Your task to perform on an android device: Go to sound settings Image 0: 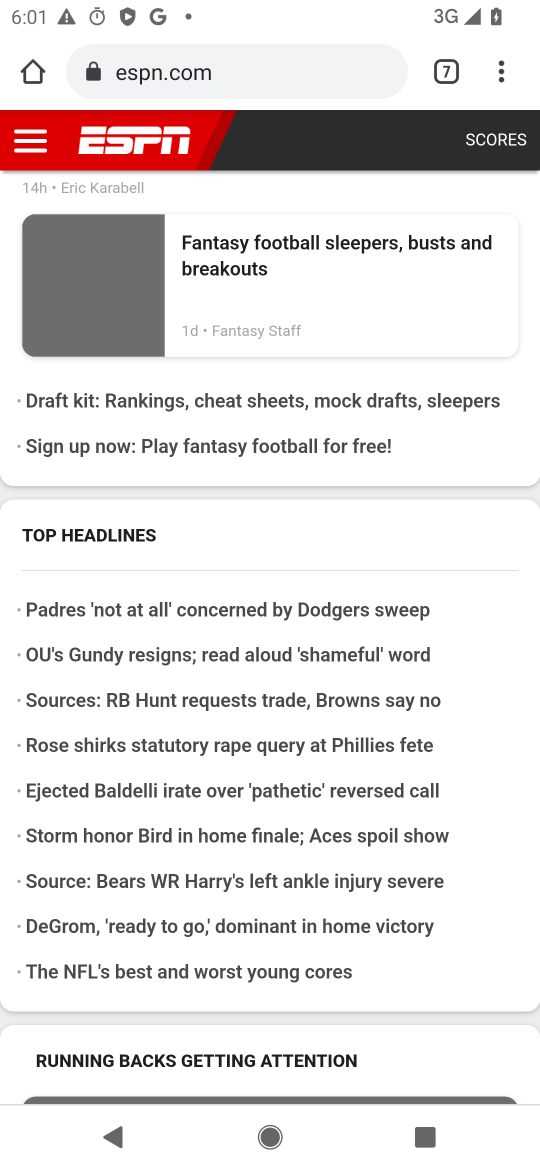
Step 0: press home button
Your task to perform on an android device: Go to sound settings Image 1: 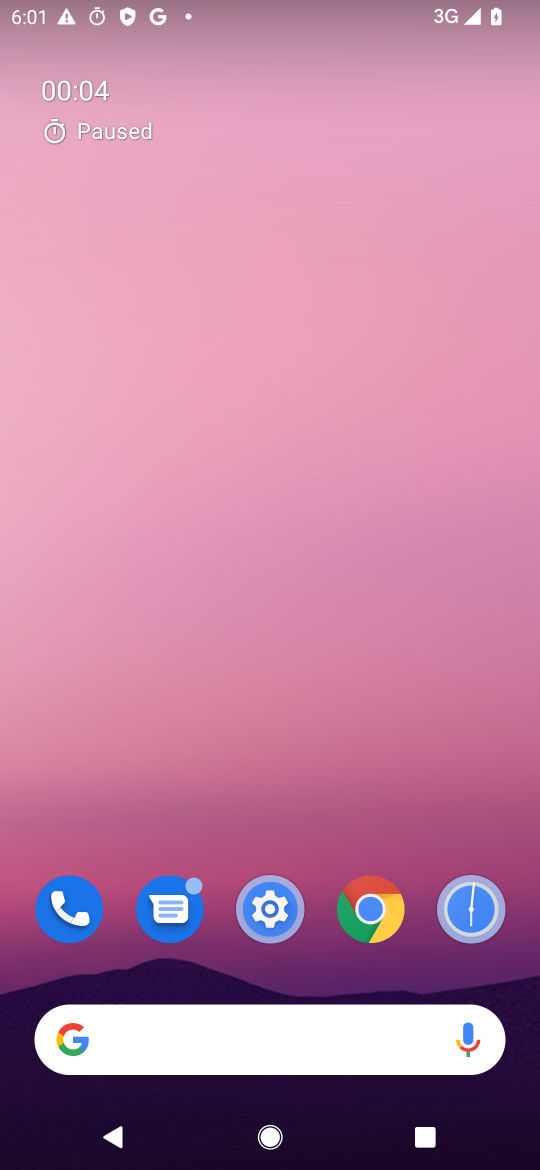
Step 1: click (265, 918)
Your task to perform on an android device: Go to sound settings Image 2: 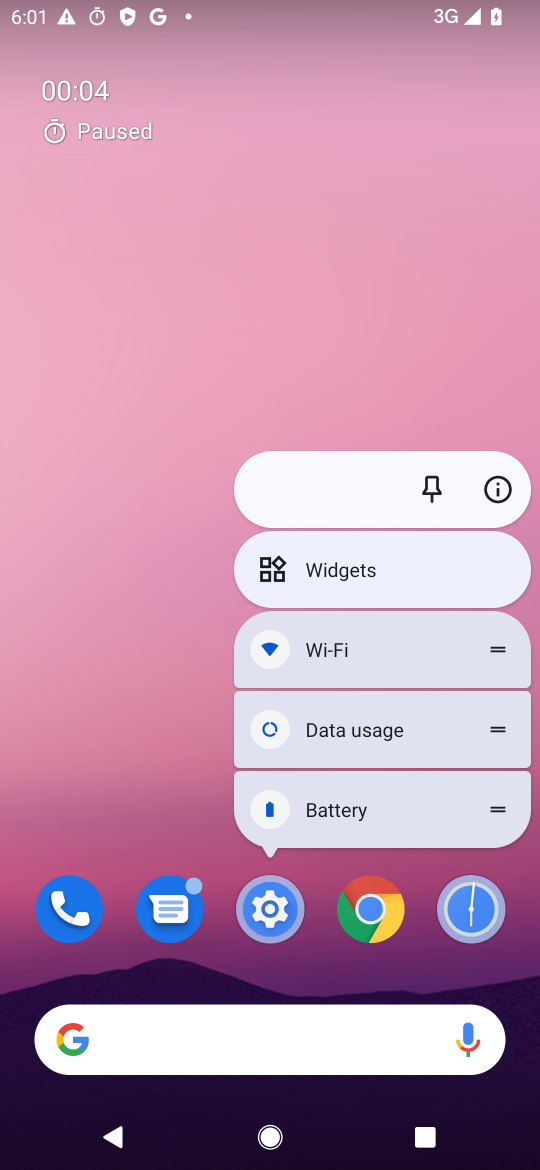
Step 2: click (267, 916)
Your task to perform on an android device: Go to sound settings Image 3: 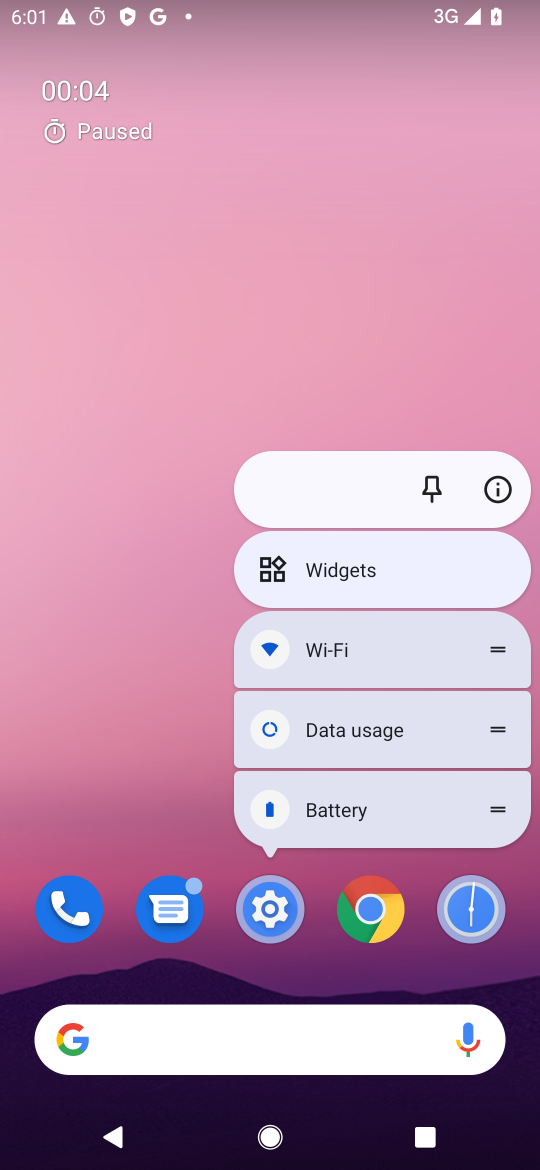
Step 3: click (267, 916)
Your task to perform on an android device: Go to sound settings Image 4: 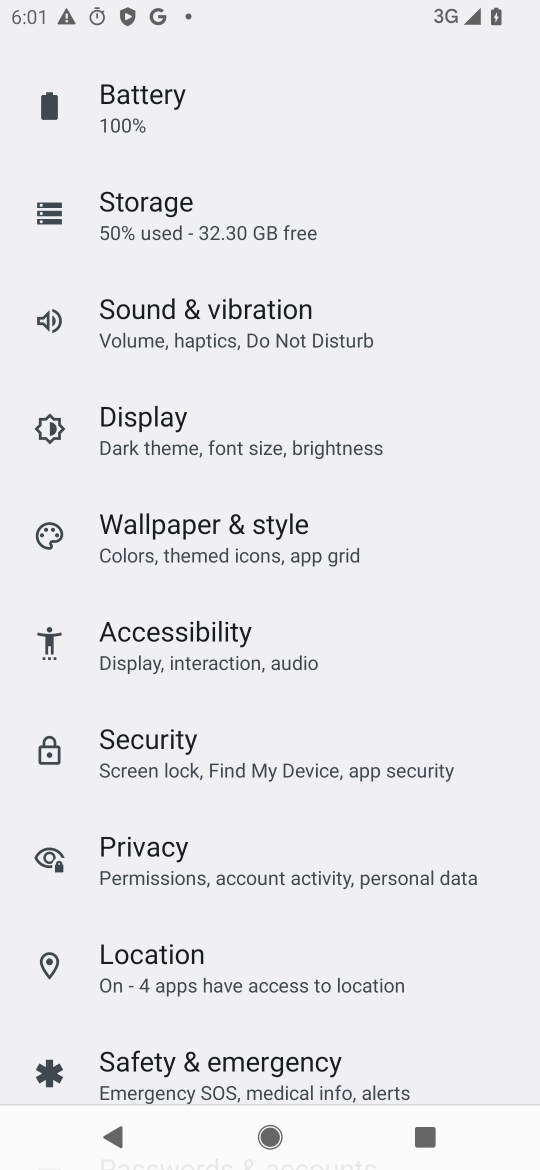
Step 4: drag from (295, 870) to (530, 136)
Your task to perform on an android device: Go to sound settings Image 5: 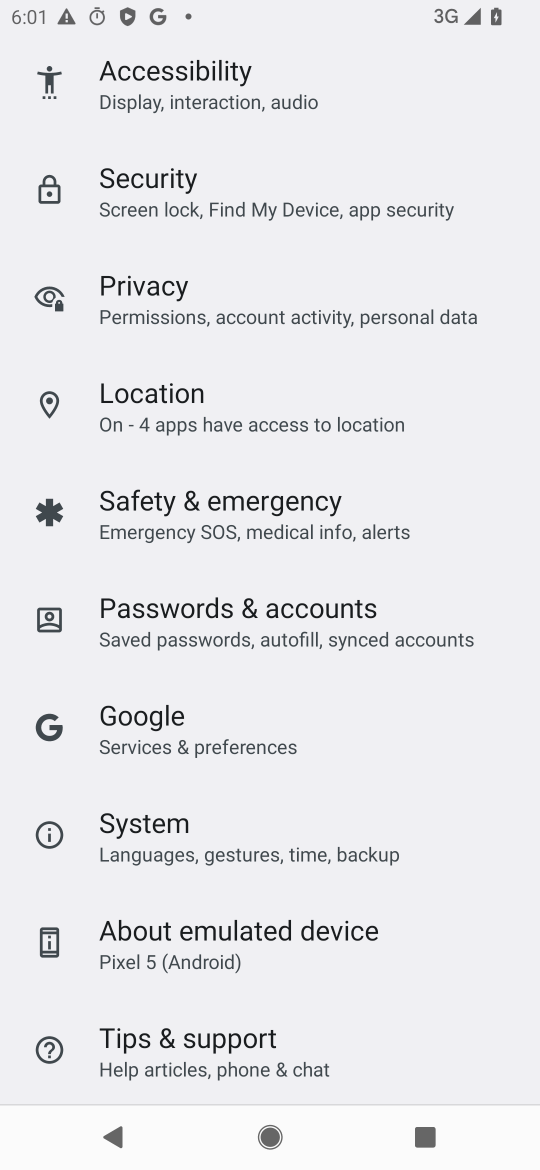
Step 5: drag from (408, 166) to (320, 1090)
Your task to perform on an android device: Go to sound settings Image 6: 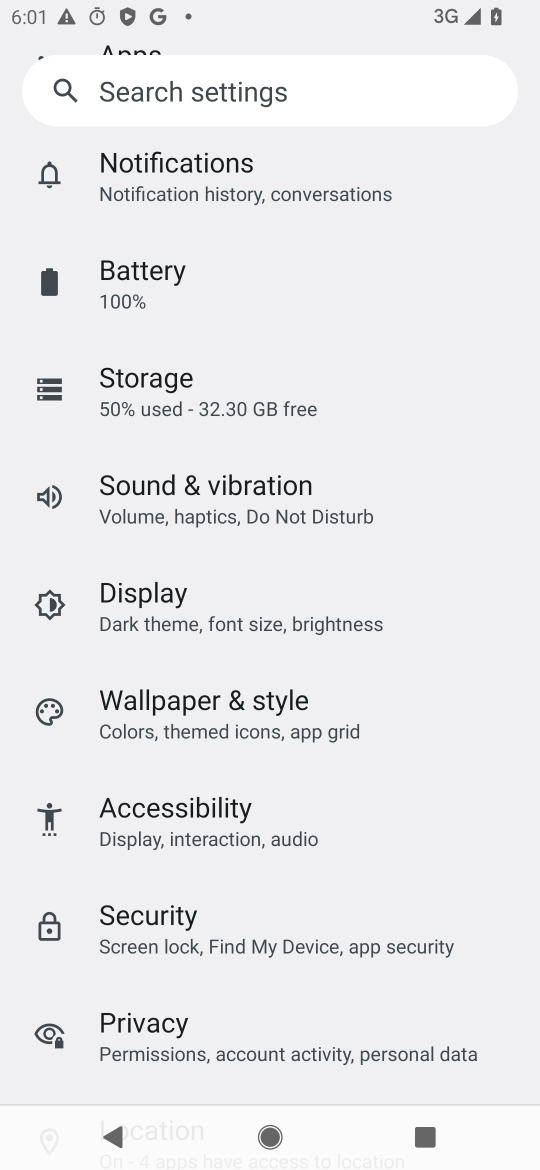
Step 6: click (202, 499)
Your task to perform on an android device: Go to sound settings Image 7: 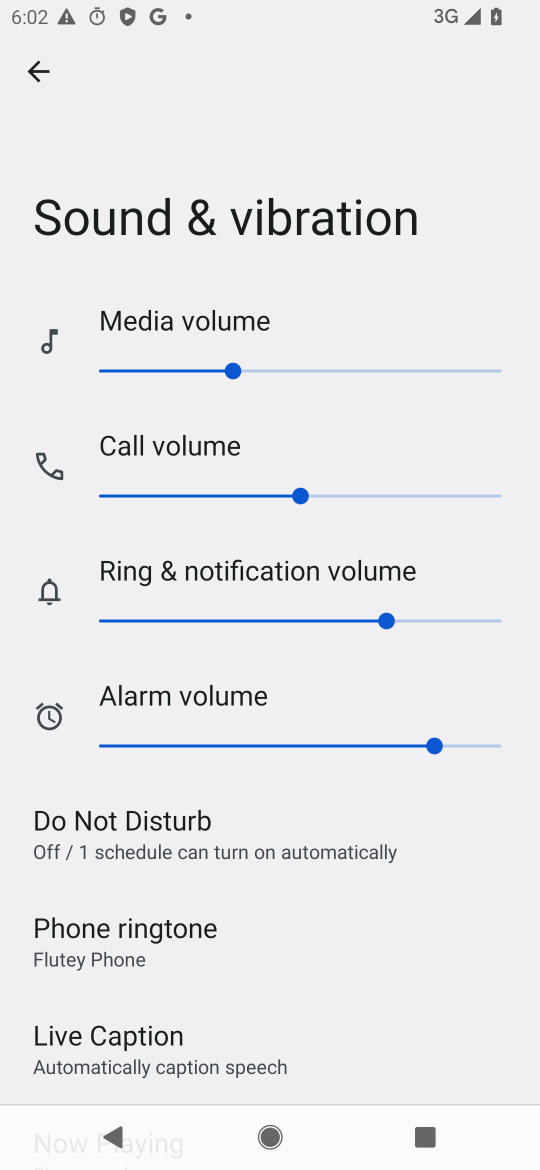
Step 7: task complete